Your task to perform on an android device: Open Youtube and go to the subscriptions tab Image 0: 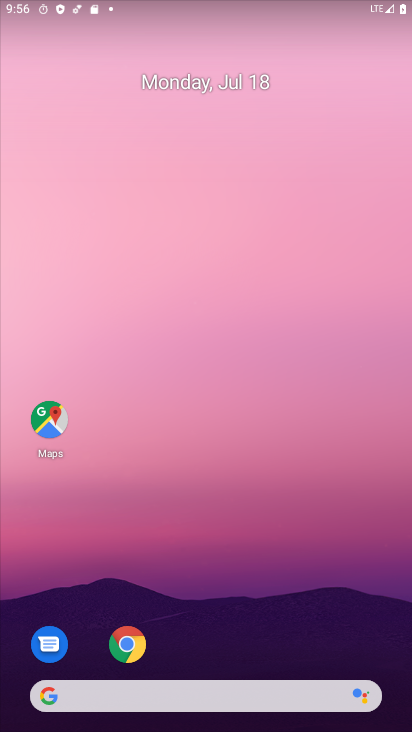
Step 0: drag from (211, 659) to (210, 210)
Your task to perform on an android device: Open Youtube and go to the subscriptions tab Image 1: 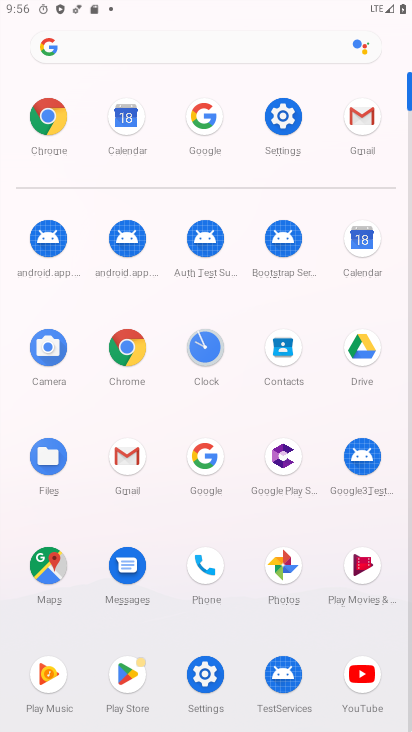
Step 1: click (357, 667)
Your task to perform on an android device: Open Youtube and go to the subscriptions tab Image 2: 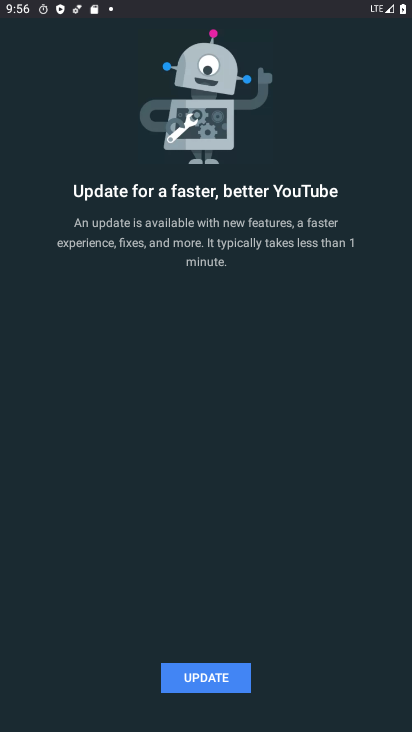
Step 2: click (205, 678)
Your task to perform on an android device: Open Youtube and go to the subscriptions tab Image 3: 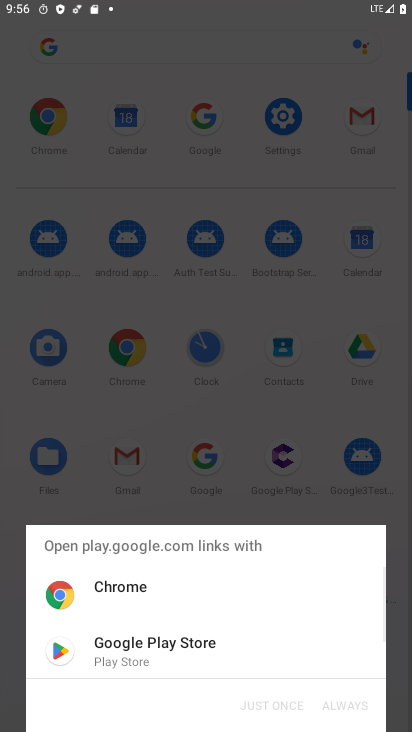
Step 3: click (146, 646)
Your task to perform on an android device: Open Youtube and go to the subscriptions tab Image 4: 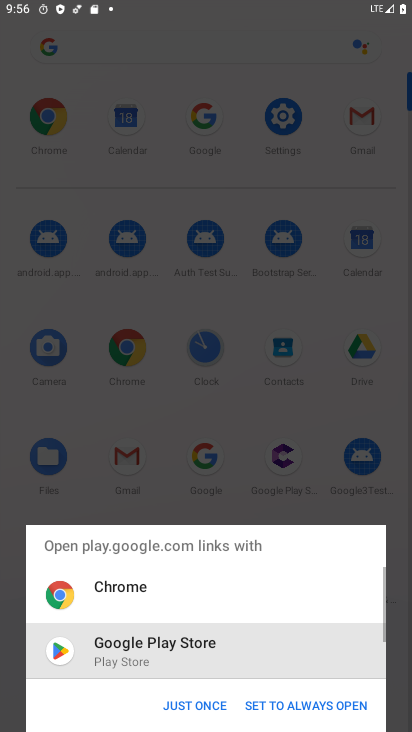
Step 4: click (194, 708)
Your task to perform on an android device: Open Youtube and go to the subscriptions tab Image 5: 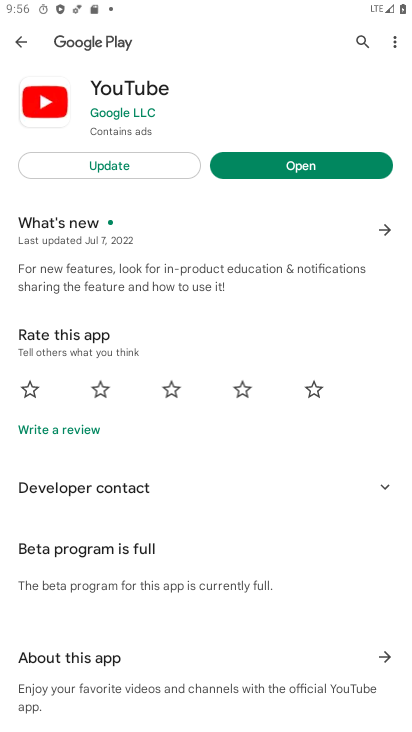
Step 5: click (113, 167)
Your task to perform on an android device: Open Youtube and go to the subscriptions tab Image 6: 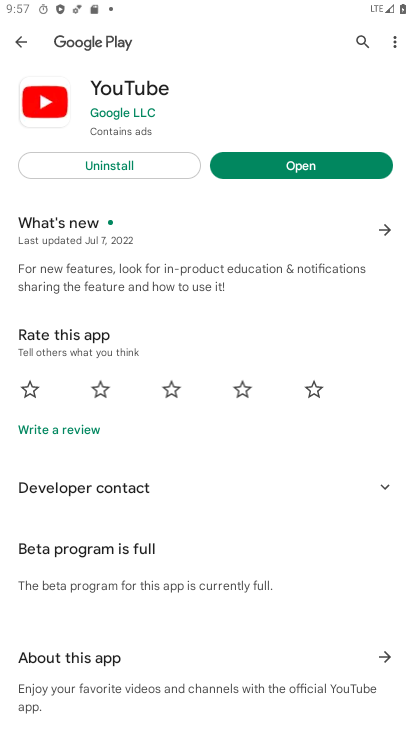
Step 6: click (298, 167)
Your task to perform on an android device: Open Youtube and go to the subscriptions tab Image 7: 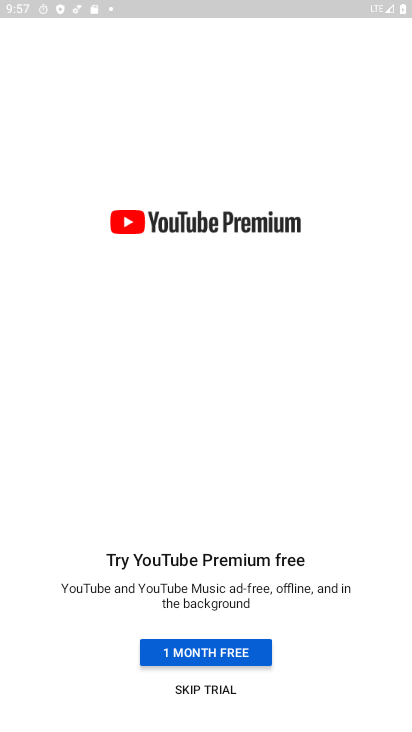
Step 7: click (204, 690)
Your task to perform on an android device: Open Youtube and go to the subscriptions tab Image 8: 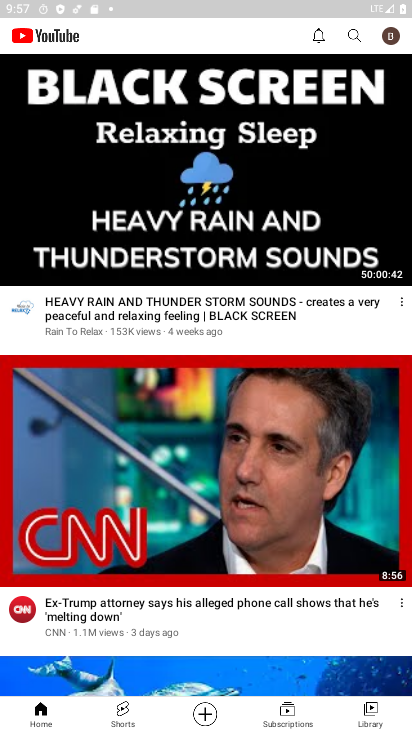
Step 8: click (281, 705)
Your task to perform on an android device: Open Youtube and go to the subscriptions tab Image 9: 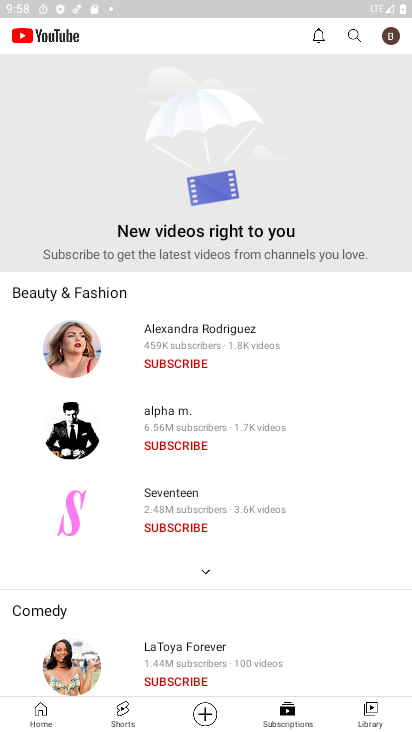
Step 9: task complete